Your task to perform on an android device: Open maps Image 0: 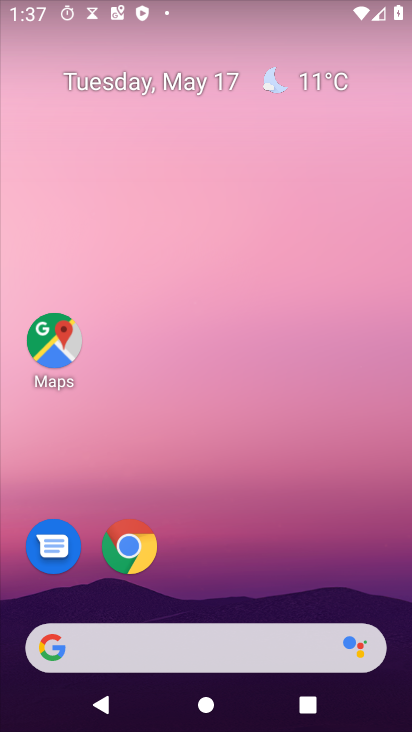
Step 0: click (53, 359)
Your task to perform on an android device: Open maps Image 1: 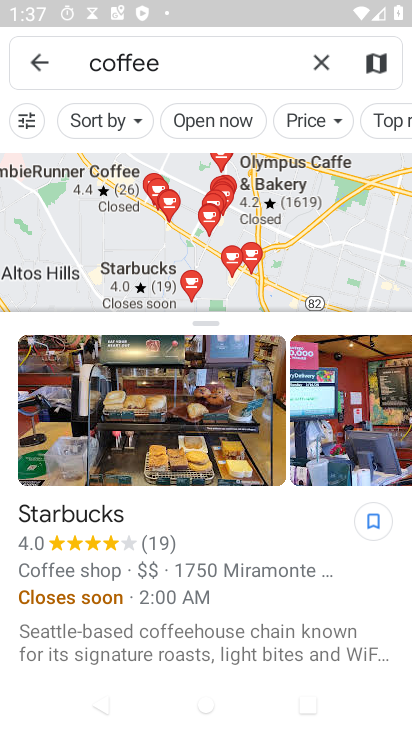
Step 1: click (41, 69)
Your task to perform on an android device: Open maps Image 2: 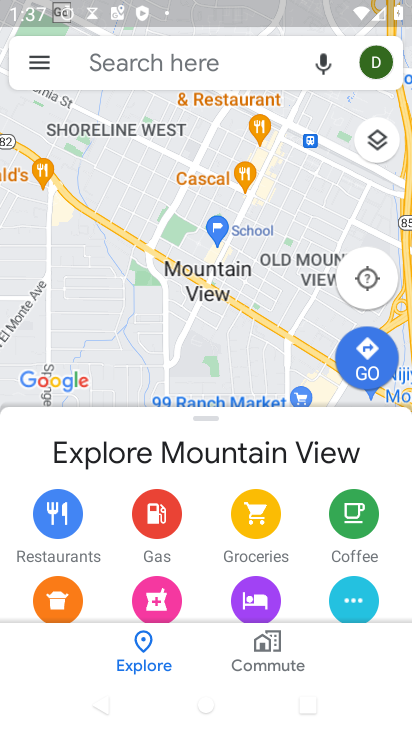
Step 2: task complete